Your task to perform on an android device: Go to Google maps Image 0: 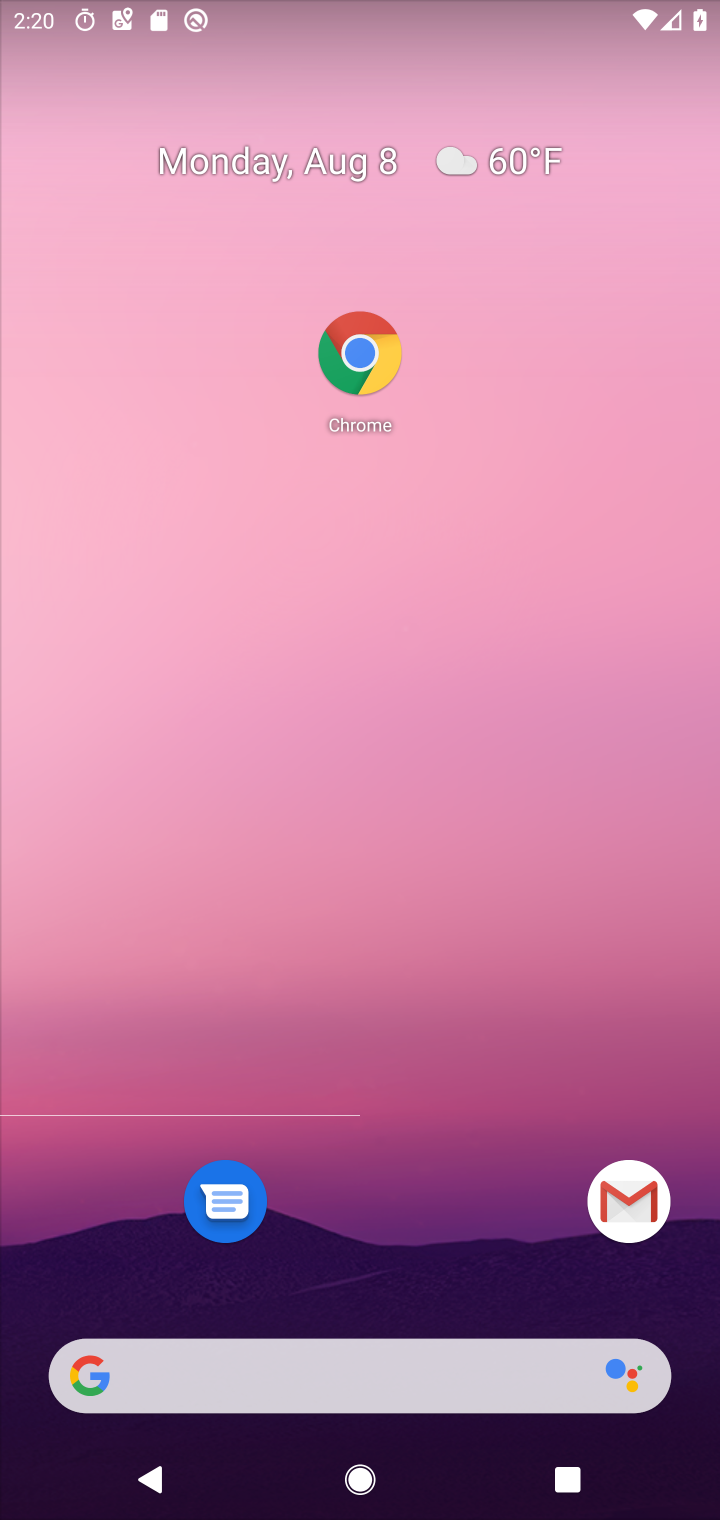
Step 0: drag from (470, 1413) to (384, 4)
Your task to perform on an android device: Go to Google maps Image 1: 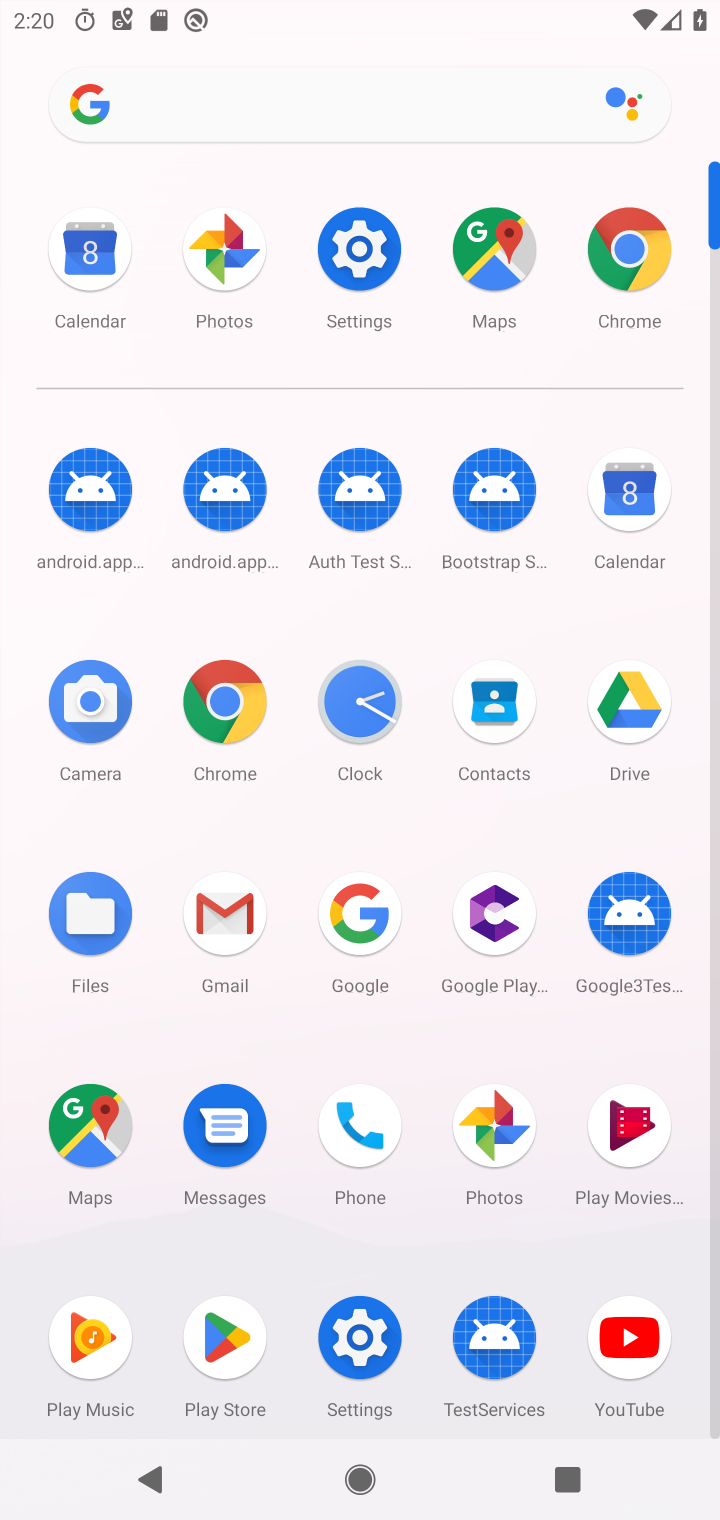
Step 1: click (492, 285)
Your task to perform on an android device: Go to Google maps Image 2: 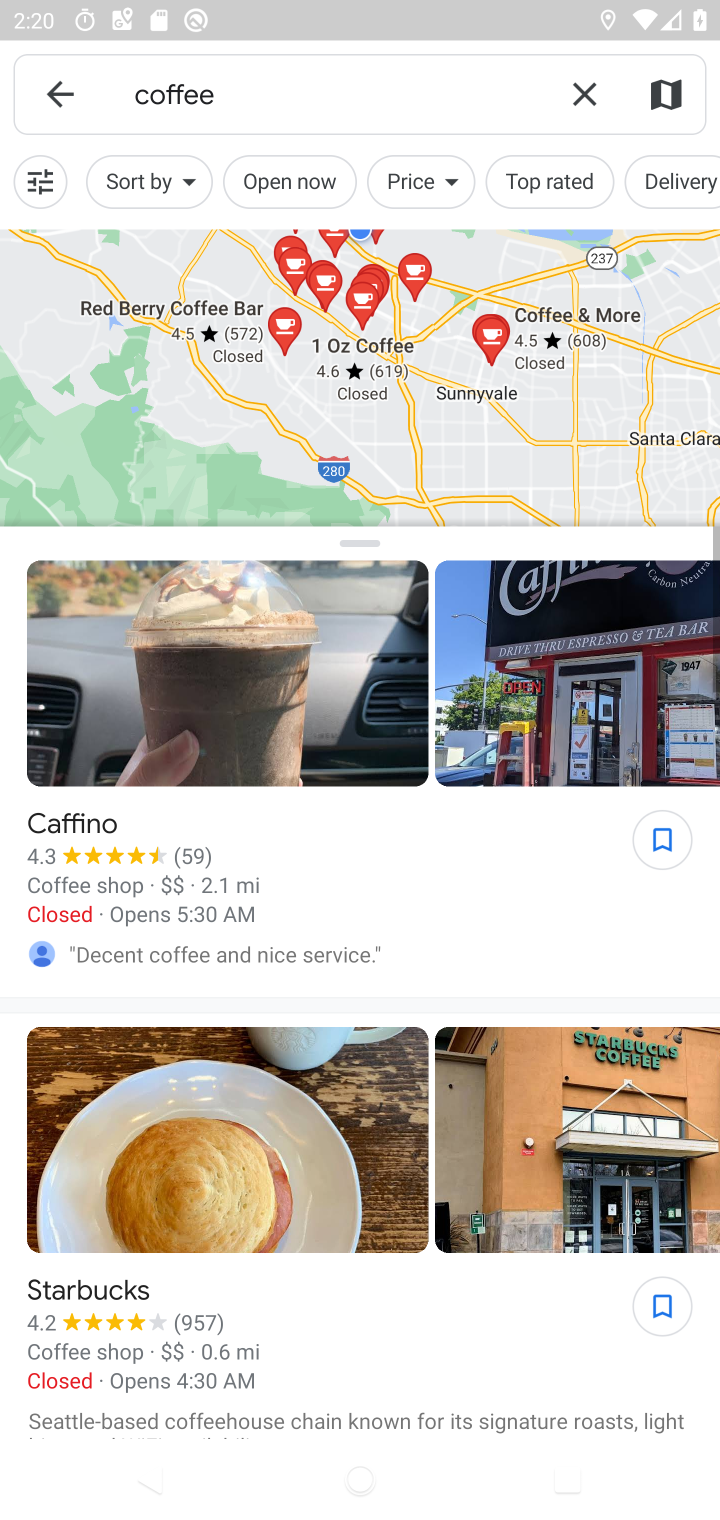
Step 2: click (60, 88)
Your task to perform on an android device: Go to Google maps Image 3: 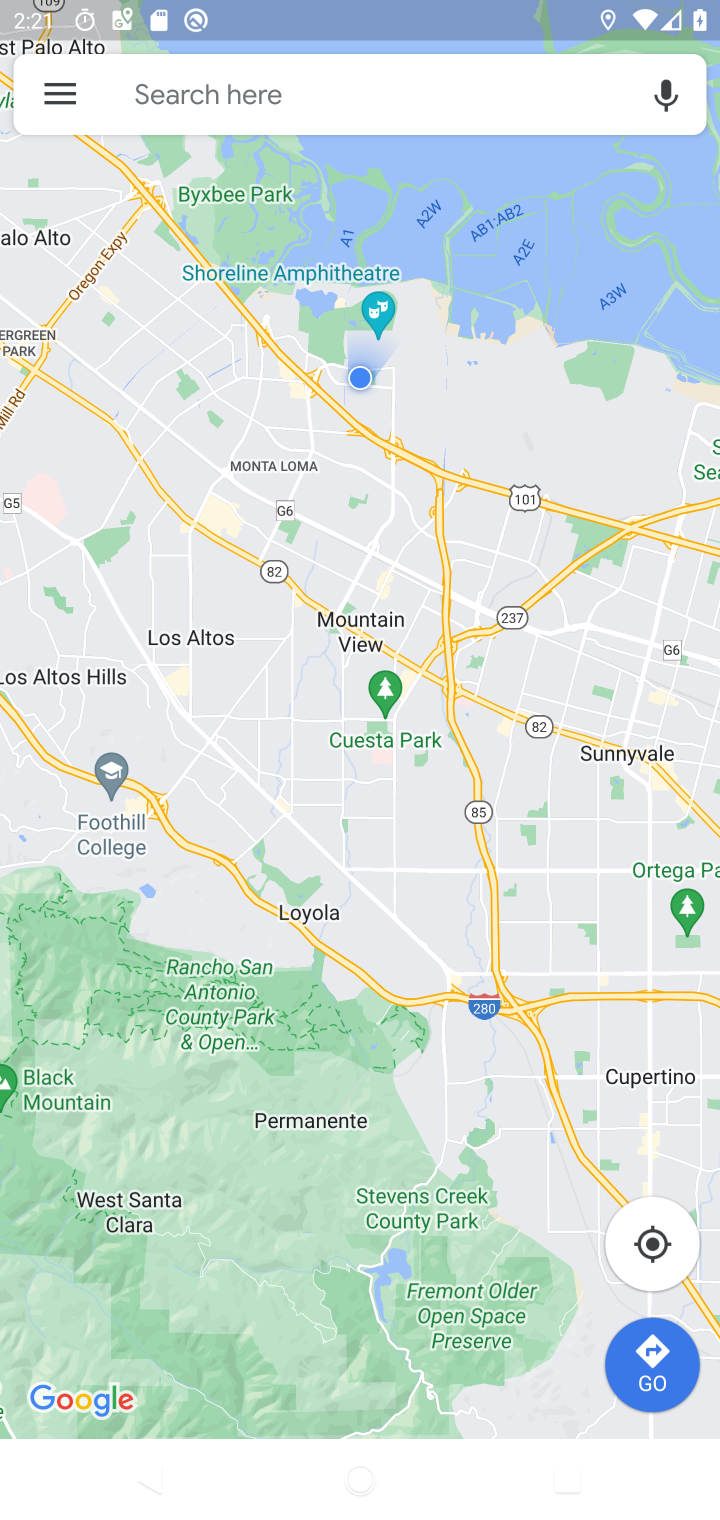
Step 3: click (658, 1246)
Your task to perform on an android device: Go to Google maps Image 4: 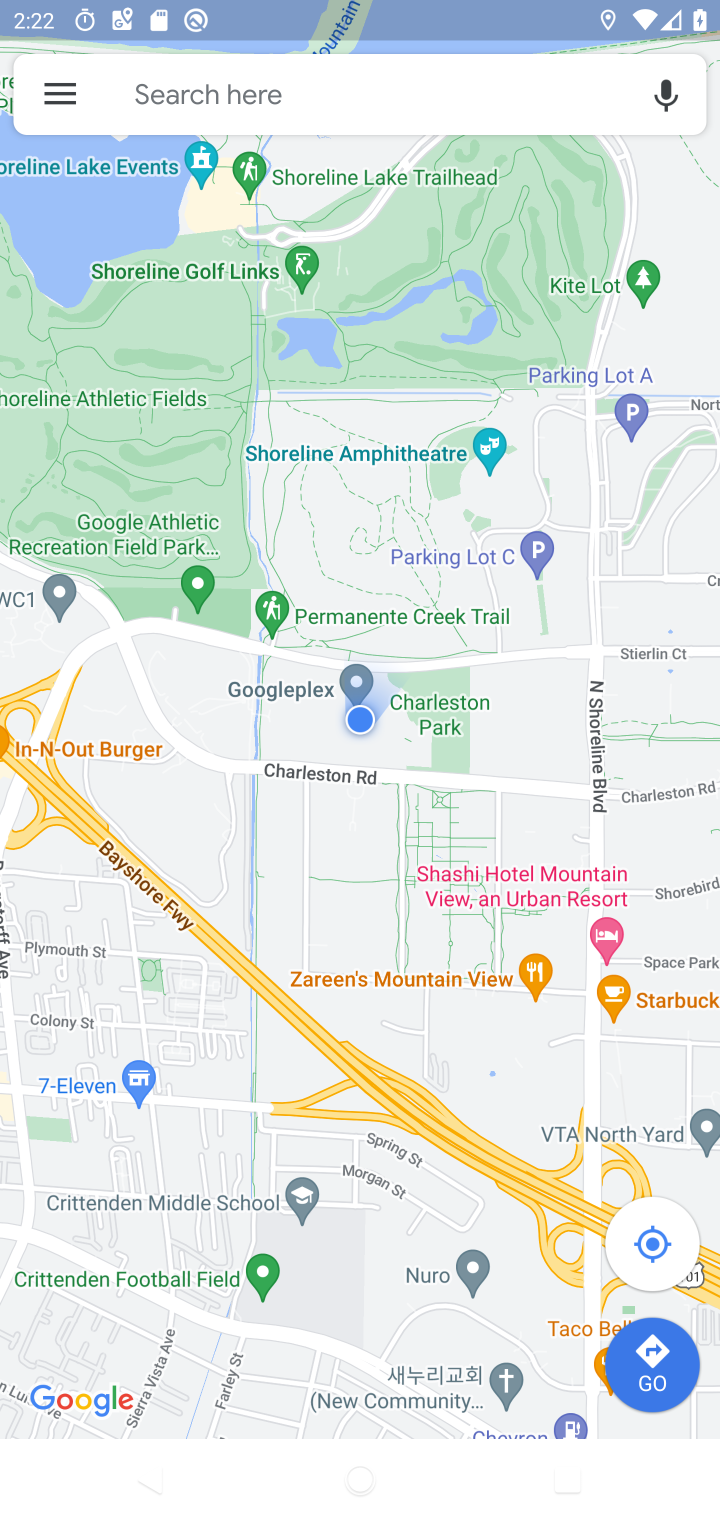
Step 4: task complete